Your task to perform on an android device: turn on notifications settings in the gmail app Image 0: 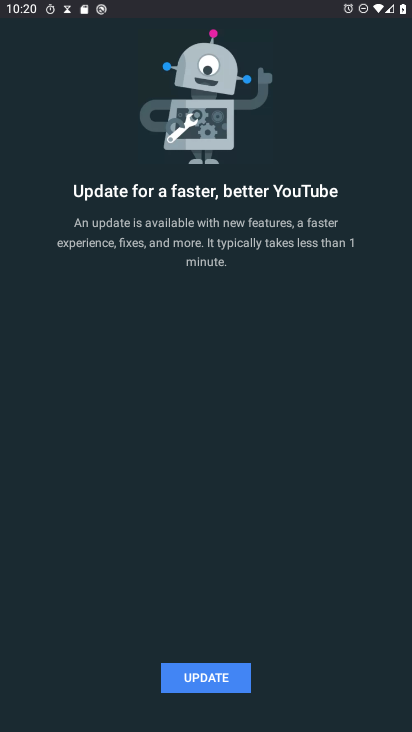
Step 0: press home button
Your task to perform on an android device: turn on notifications settings in the gmail app Image 1: 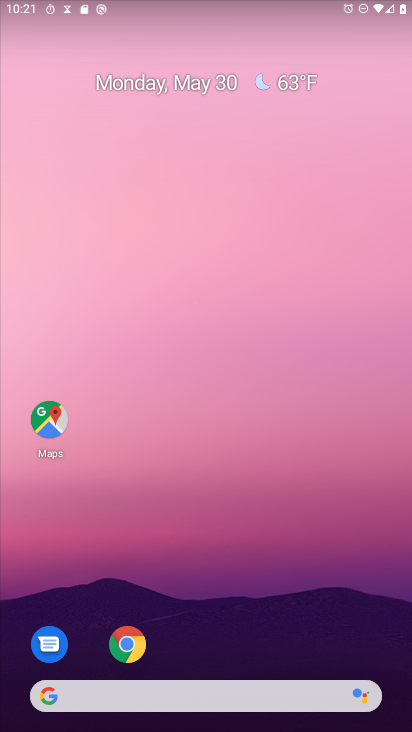
Step 1: drag from (249, 637) to (294, 13)
Your task to perform on an android device: turn on notifications settings in the gmail app Image 2: 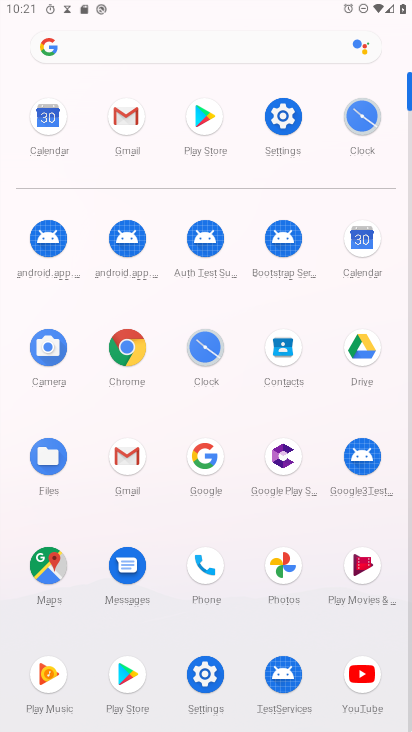
Step 2: click (122, 118)
Your task to perform on an android device: turn on notifications settings in the gmail app Image 3: 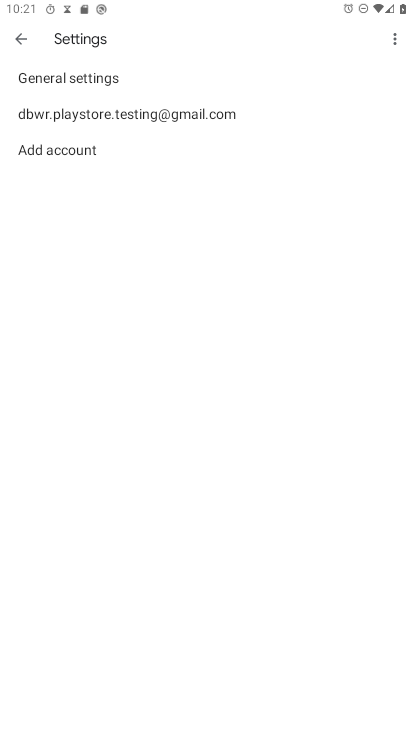
Step 3: click (122, 118)
Your task to perform on an android device: turn on notifications settings in the gmail app Image 4: 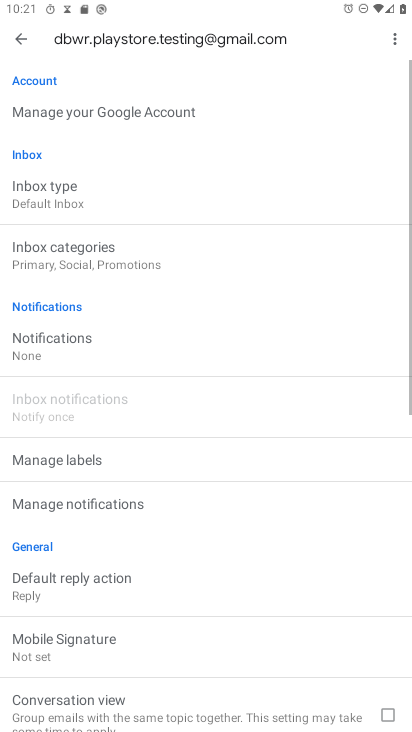
Step 4: click (103, 361)
Your task to perform on an android device: turn on notifications settings in the gmail app Image 5: 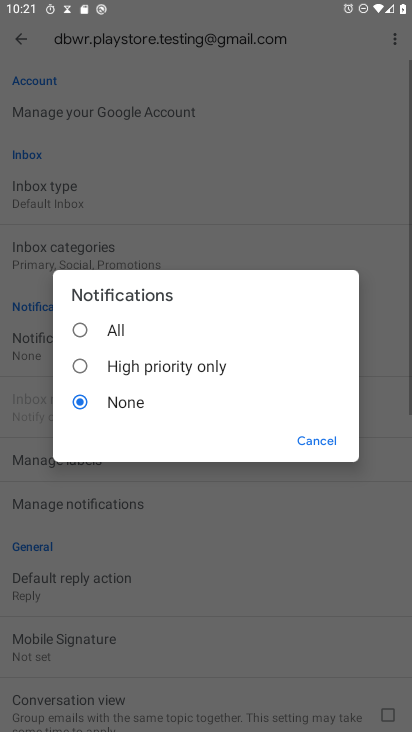
Step 5: click (102, 322)
Your task to perform on an android device: turn on notifications settings in the gmail app Image 6: 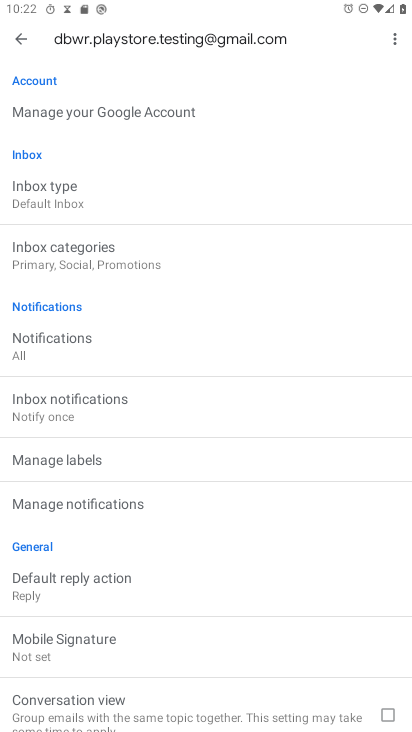
Step 6: task complete